Your task to perform on an android device: Search for vegetarian restaurants on Maps Image 0: 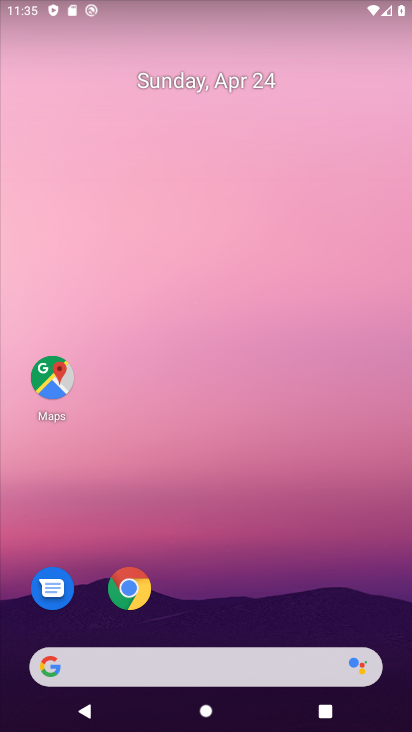
Step 0: click (42, 383)
Your task to perform on an android device: Search for vegetarian restaurants on Maps Image 1: 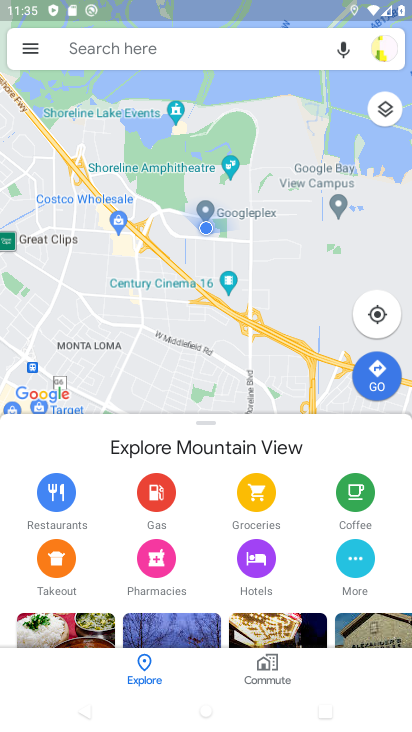
Step 1: click (241, 47)
Your task to perform on an android device: Search for vegetarian restaurants on Maps Image 2: 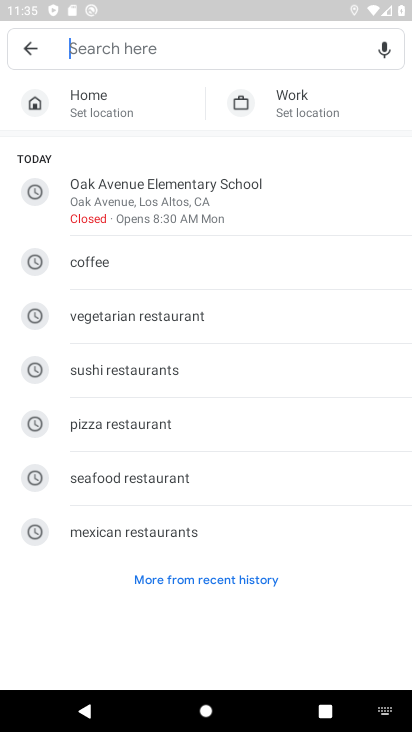
Step 2: click (192, 317)
Your task to perform on an android device: Search for vegetarian restaurants on Maps Image 3: 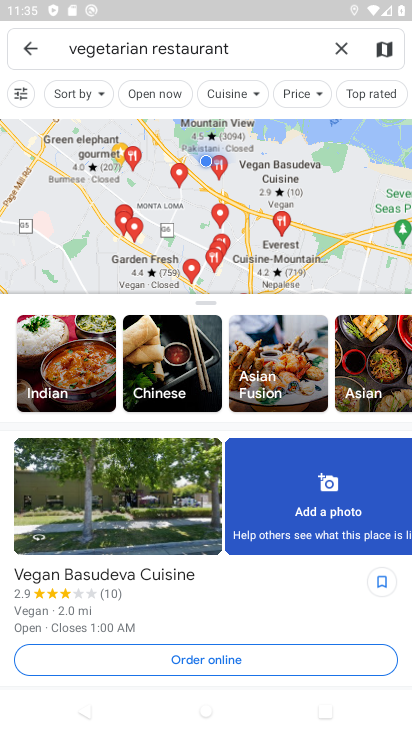
Step 3: task complete